Your task to perform on an android device: toggle airplane mode Image 0: 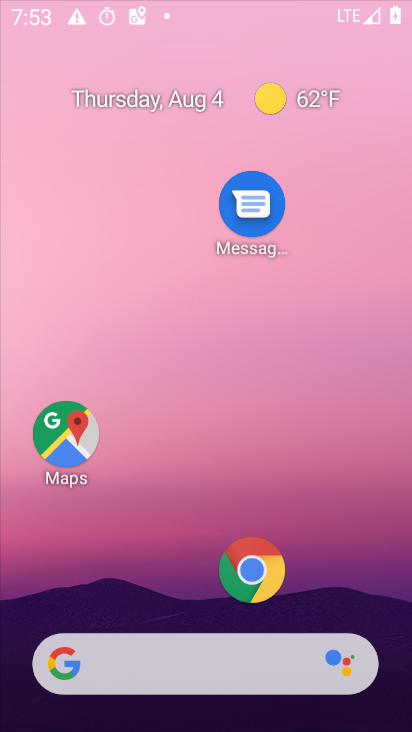
Step 0: press home button
Your task to perform on an android device: toggle airplane mode Image 1: 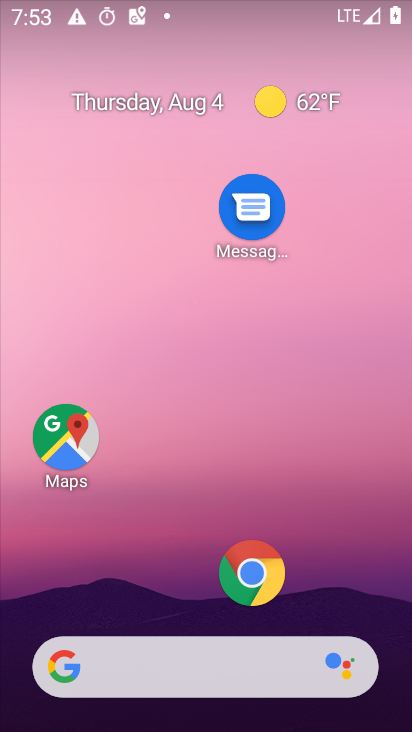
Step 1: drag from (242, 6) to (297, 547)
Your task to perform on an android device: toggle airplane mode Image 2: 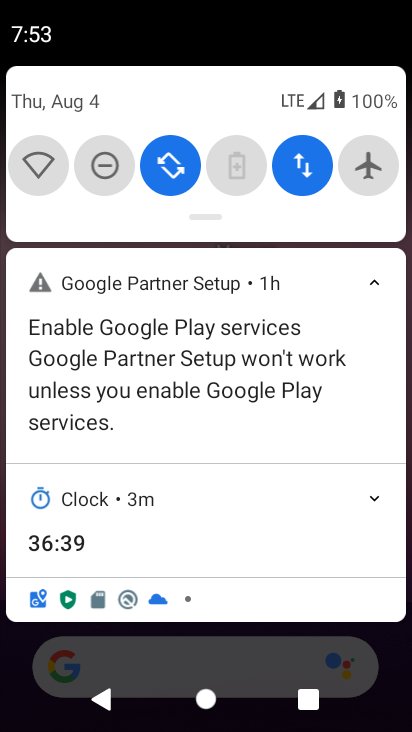
Step 2: click (378, 164)
Your task to perform on an android device: toggle airplane mode Image 3: 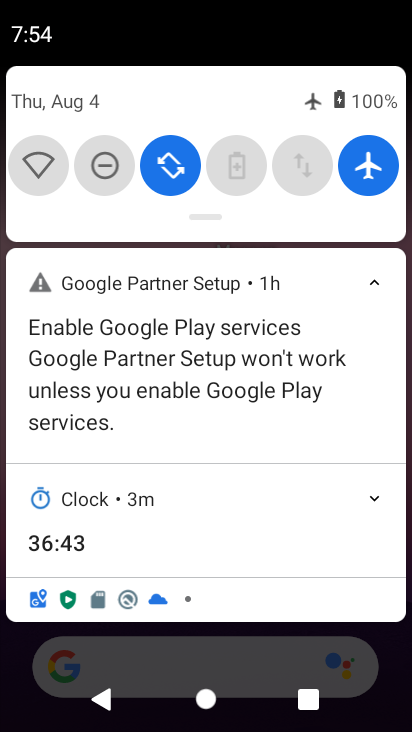
Step 3: task complete